Your task to perform on an android device: Add acer predator to the cart on walmart.com Image 0: 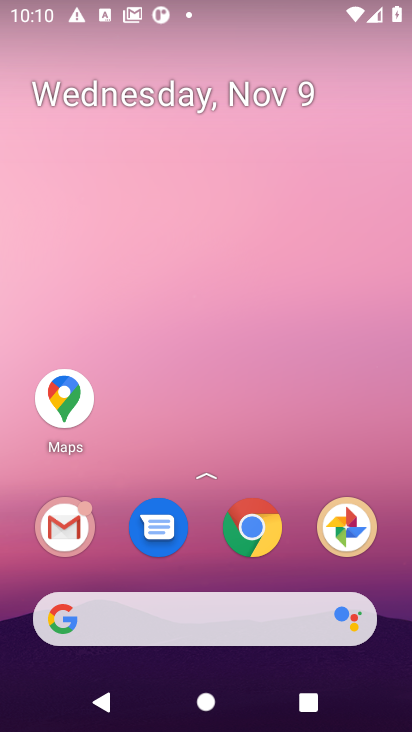
Step 0: click (256, 530)
Your task to perform on an android device: Add acer predator to the cart on walmart.com Image 1: 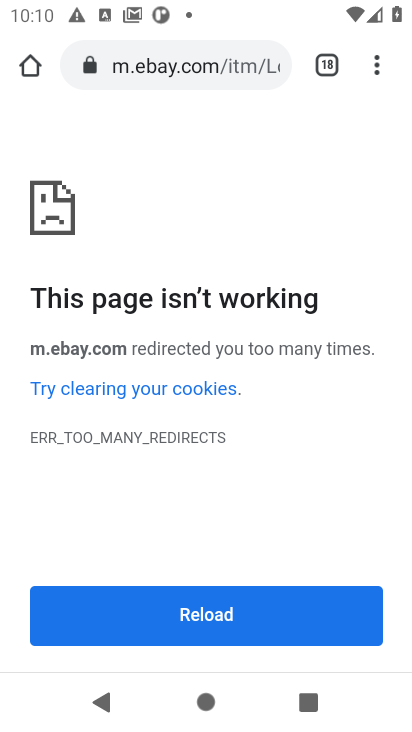
Step 1: click (181, 60)
Your task to perform on an android device: Add acer predator to the cart on walmart.com Image 2: 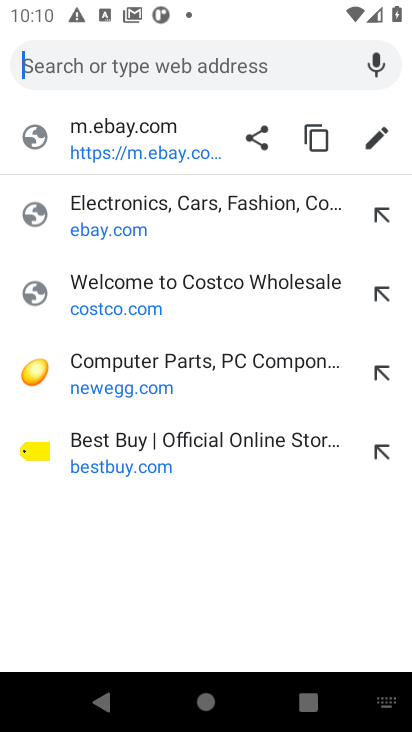
Step 2: type "walmart.com"
Your task to perform on an android device: Add acer predator to the cart on walmart.com Image 3: 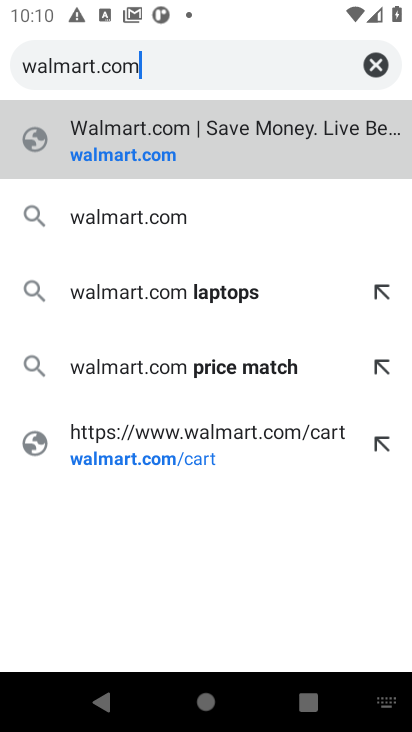
Step 3: click (108, 159)
Your task to perform on an android device: Add acer predator to the cart on walmart.com Image 4: 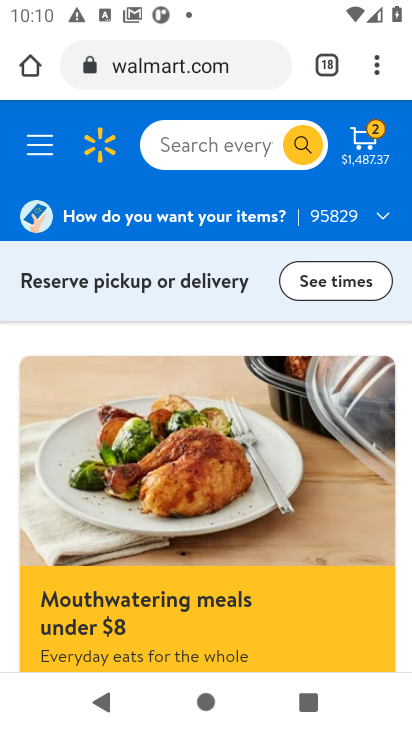
Step 4: click (204, 152)
Your task to perform on an android device: Add acer predator to the cart on walmart.com Image 5: 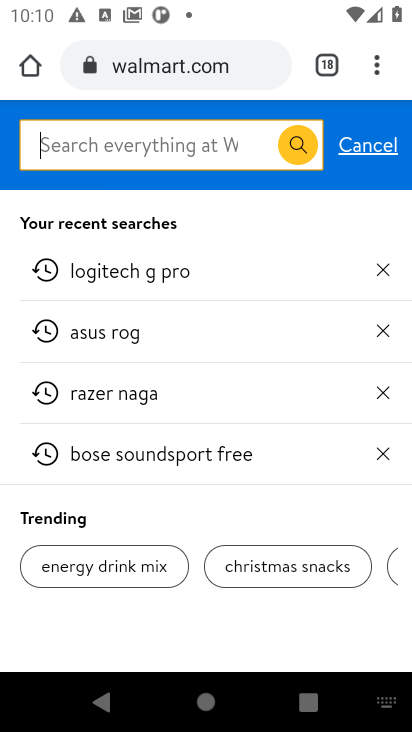
Step 5: type "acer predator"
Your task to perform on an android device: Add acer predator to the cart on walmart.com Image 6: 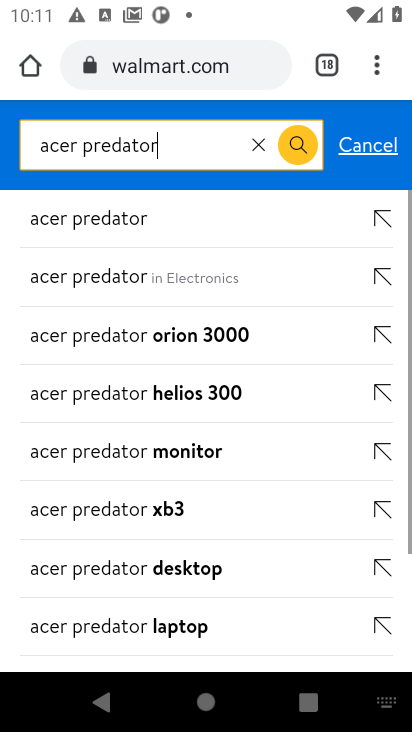
Step 6: click (70, 225)
Your task to perform on an android device: Add acer predator to the cart on walmart.com Image 7: 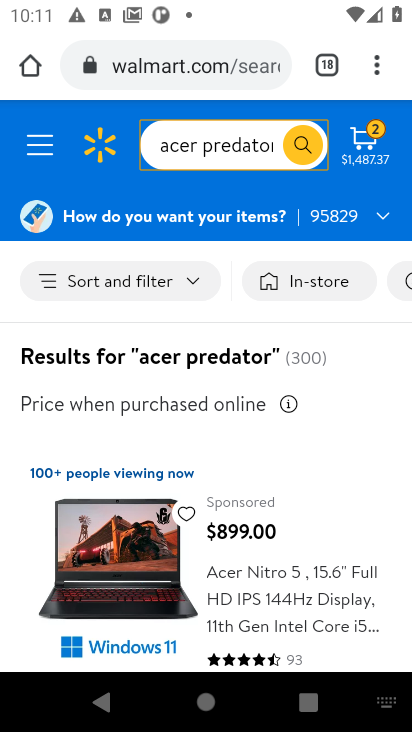
Step 7: drag from (176, 520) to (170, 301)
Your task to perform on an android device: Add acer predator to the cart on walmart.com Image 8: 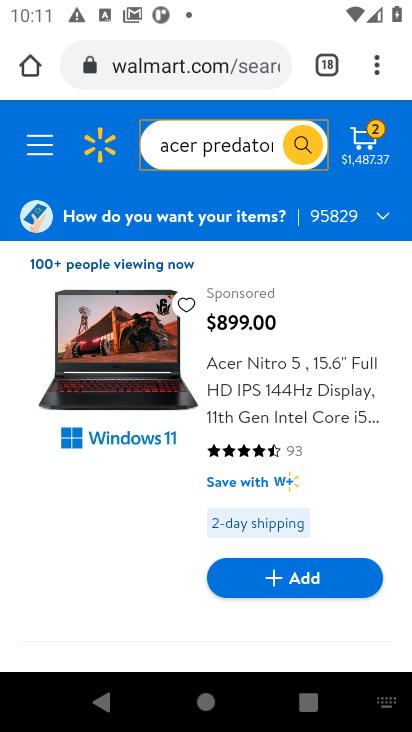
Step 8: drag from (150, 510) to (159, 230)
Your task to perform on an android device: Add acer predator to the cart on walmart.com Image 9: 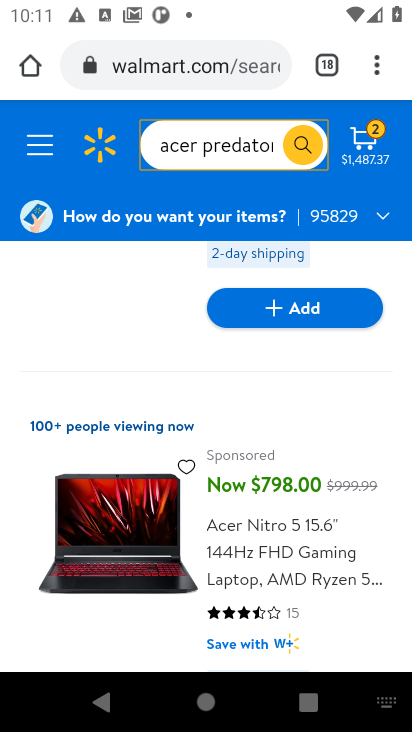
Step 9: drag from (144, 533) to (147, 254)
Your task to perform on an android device: Add acer predator to the cart on walmart.com Image 10: 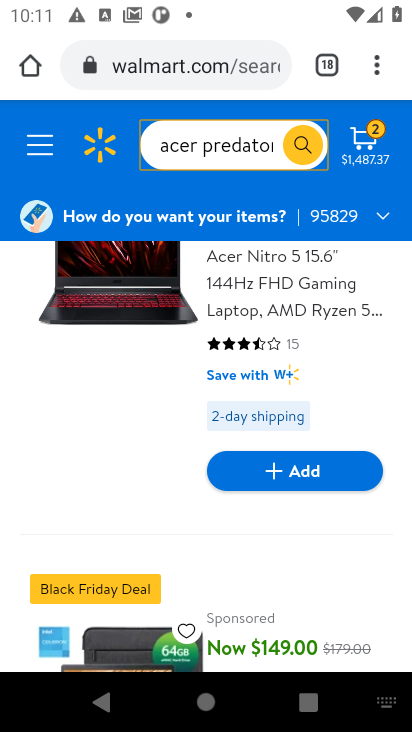
Step 10: drag from (133, 537) to (137, 267)
Your task to perform on an android device: Add acer predator to the cart on walmart.com Image 11: 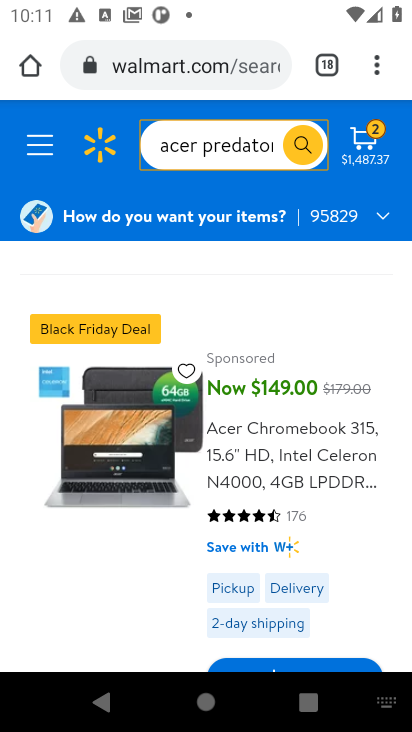
Step 11: drag from (121, 468) to (127, 223)
Your task to perform on an android device: Add acer predator to the cart on walmart.com Image 12: 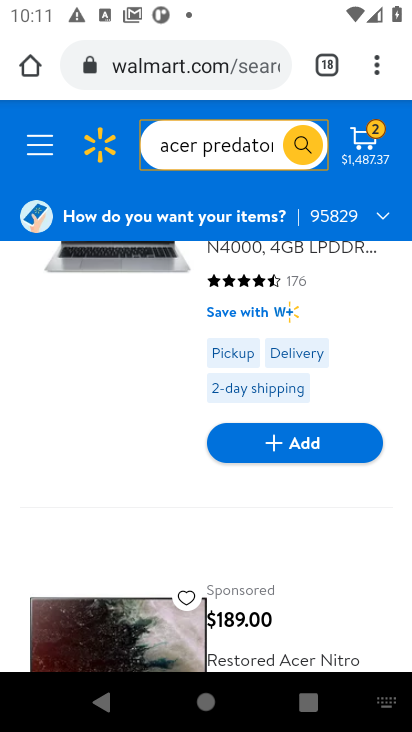
Step 12: drag from (160, 536) to (167, 295)
Your task to perform on an android device: Add acer predator to the cart on walmart.com Image 13: 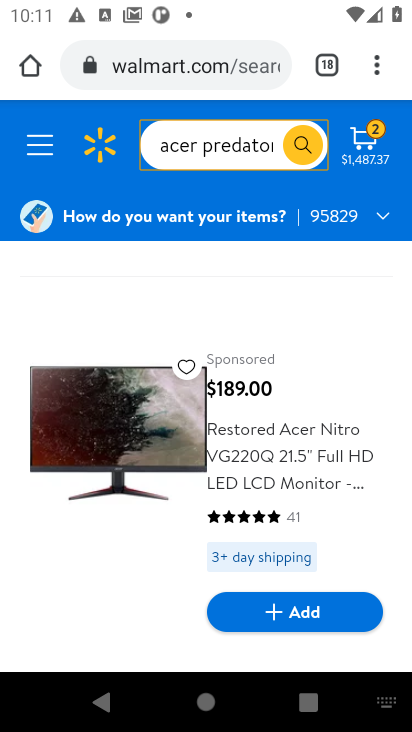
Step 13: drag from (162, 515) to (147, 238)
Your task to perform on an android device: Add acer predator to the cart on walmart.com Image 14: 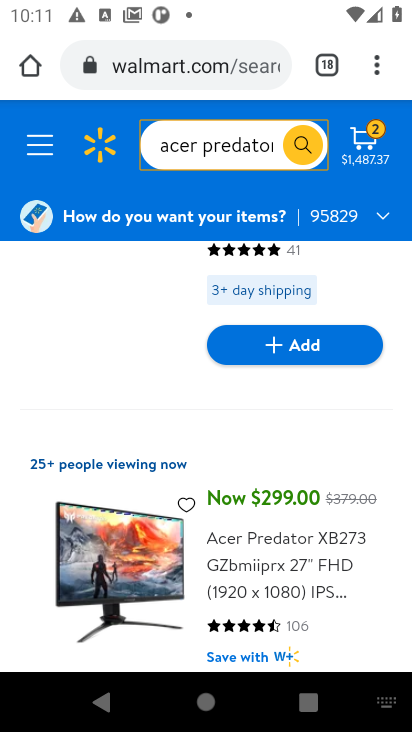
Step 14: drag from (141, 514) to (145, 321)
Your task to perform on an android device: Add acer predator to the cart on walmart.com Image 15: 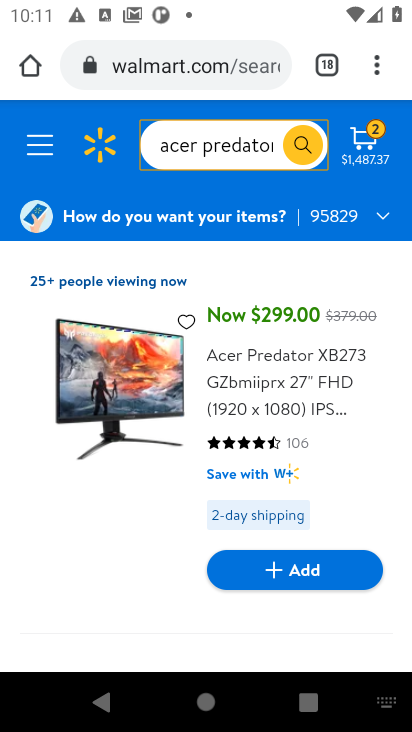
Step 15: click (305, 569)
Your task to perform on an android device: Add acer predator to the cart on walmart.com Image 16: 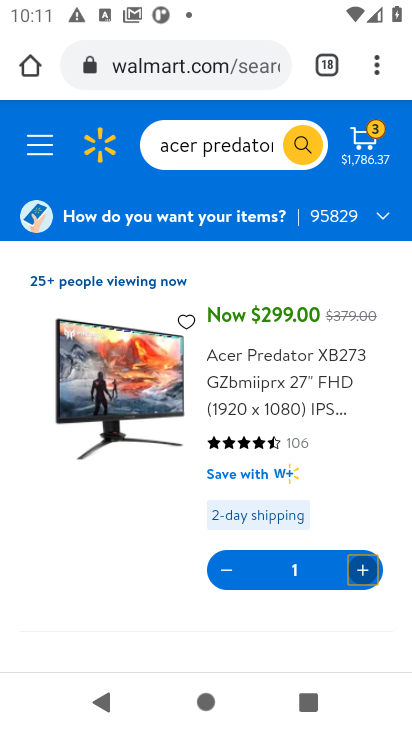
Step 16: task complete